Your task to perform on an android device: check storage Image 0: 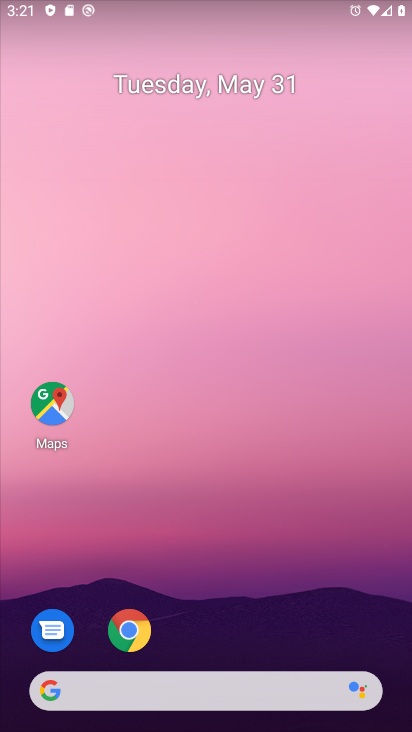
Step 0: drag from (312, 639) to (213, 78)
Your task to perform on an android device: check storage Image 1: 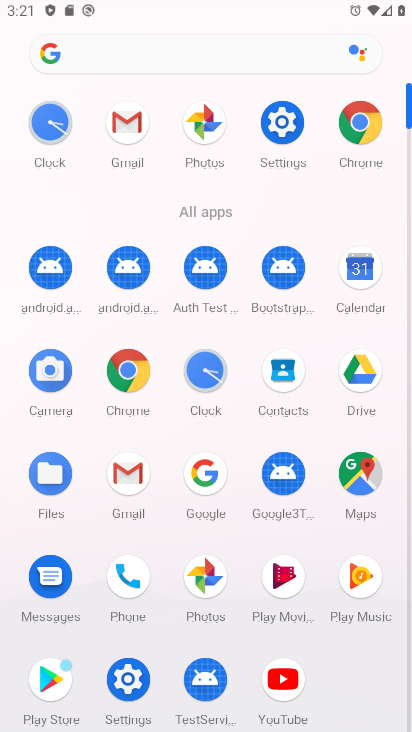
Step 1: click (274, 136)
Your task to perform on an android device: check storage Image 2: 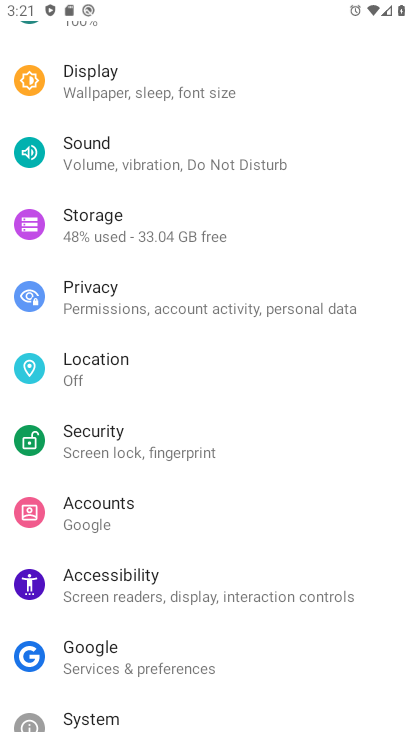
Step 2: click (134, 236)
Your task to perform on an android device: check storage Image 3: 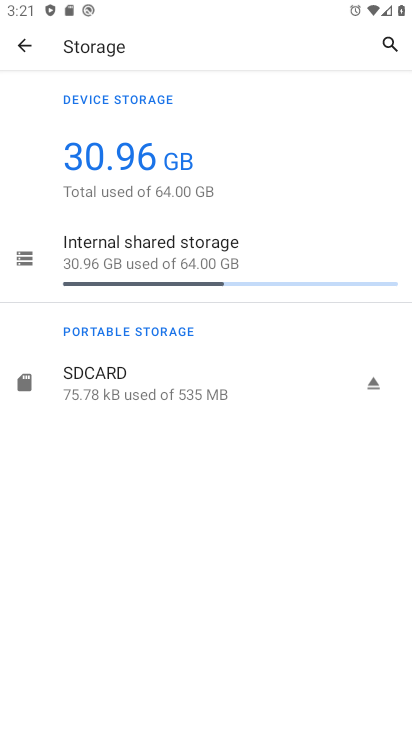
Step 3: task complete